Your task to perform on an android device: open a new tab in the chrome app Image 0: 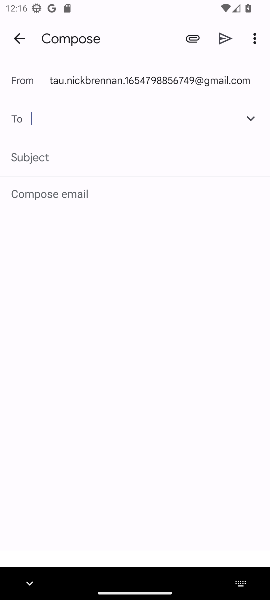
Step 0: press home button
Your task to perform on an android device: open a new tab in the chrome app Image 1: 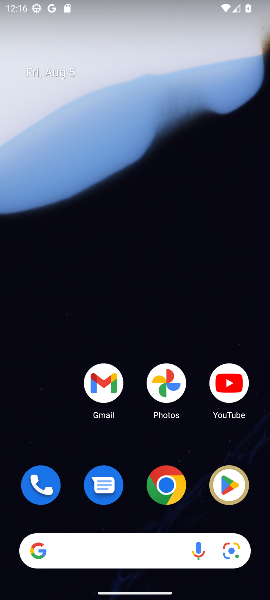
Step 1: click (169, 480)
Your task to perform on an android device: open a new tab in the chrome app Image 2: 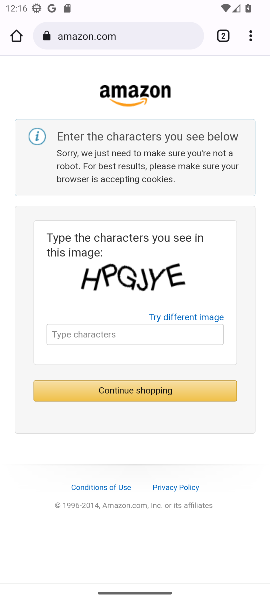
Step 2: click (250, 31)
Your task to perform on an android device: open a new tab in the chrome app Image 3: 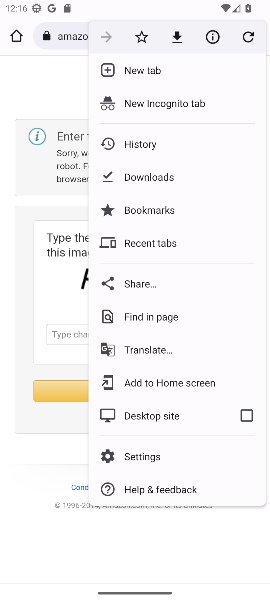
Step 3: click (143, 64)
Your task to perform on an android device: open a new tab in the chrome app Image 4: 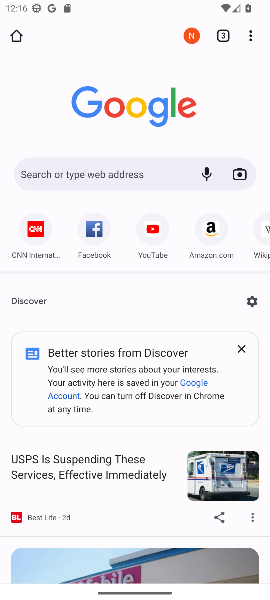
Step 4: task complete